Your task to perform on an android device: turn off data saver in the chrome app Image 0: 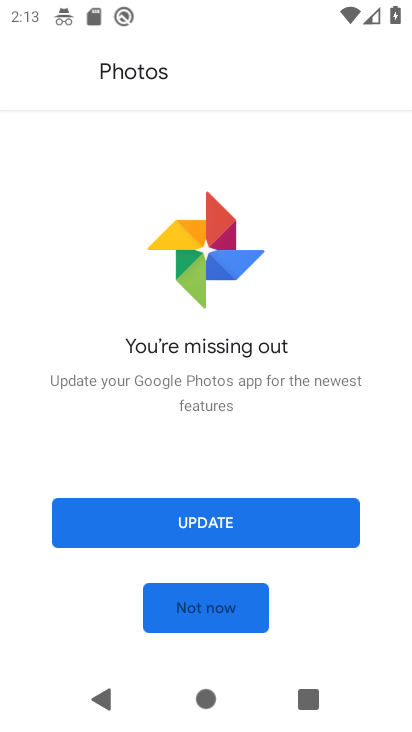
Step 0: press home button
Your task to perform on an android device: turn off data saver in the chrome app Image 1: 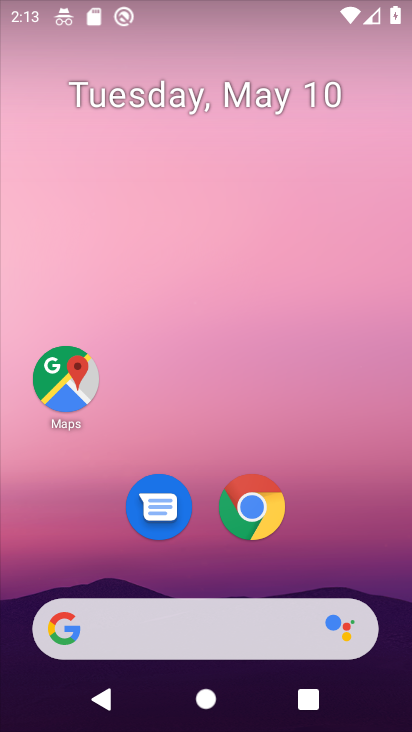
Step 1: click (249, 509)
Your task to perform on an android device: turn off data saver in the chrome app Image 2: 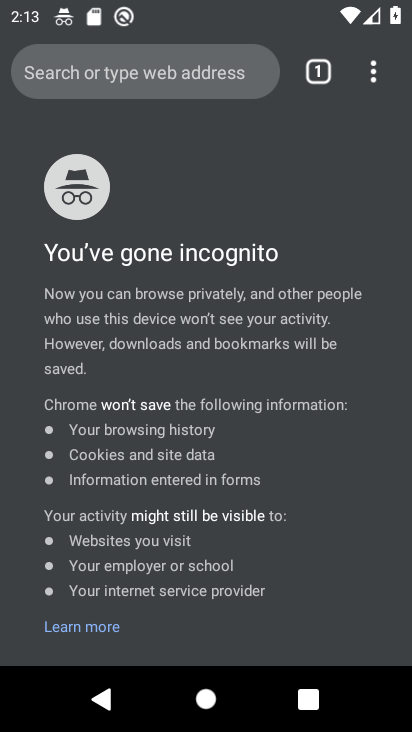
Step 2: click (376, 71)
Your task to perform on an android device: turn off data saver in the chrome app Image 3: 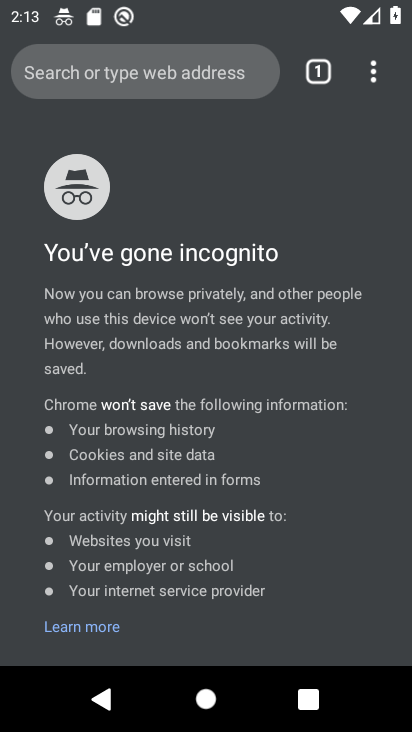
Step 3: click (377, 77)
Your task to perform on an android device: turn off data saver in the chrome app Image 4: 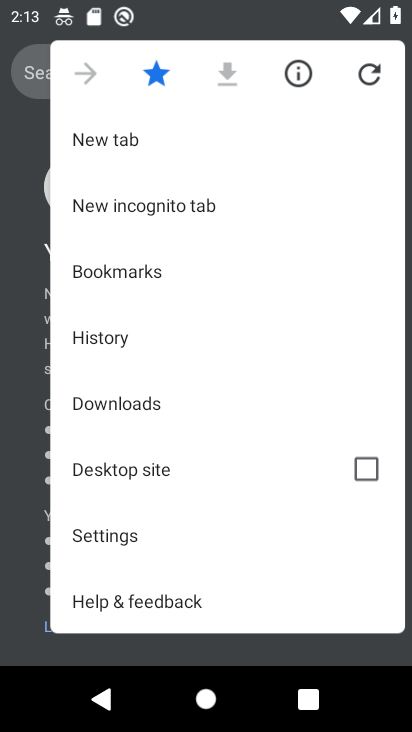
Step 4: click (124, 535)
Your task to perform on an android device: turn off data saver in the chrome app Image 5: 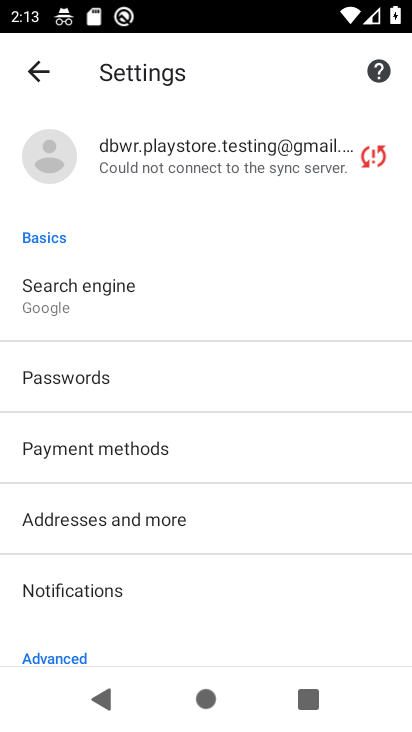
Step 5: drag from (158, 673) to (190, 365)
Your task to perform on an android device: turn off data saver in the chrome app Image 6: 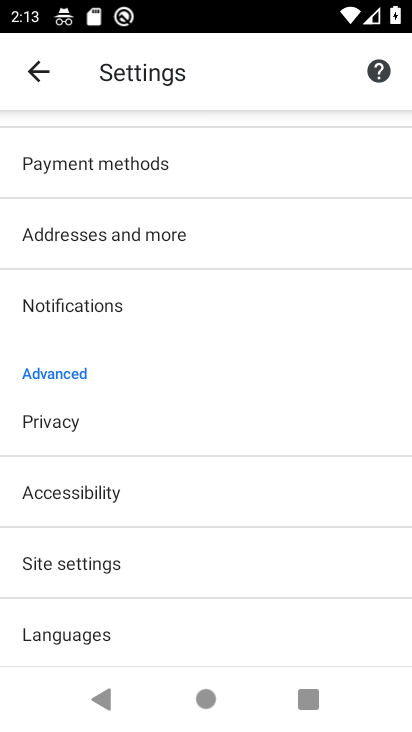
Step 6: drag from (154, 619) to (184, 416)
Your task to perform on an android device: turn off data saver in the chrome app Image 7: 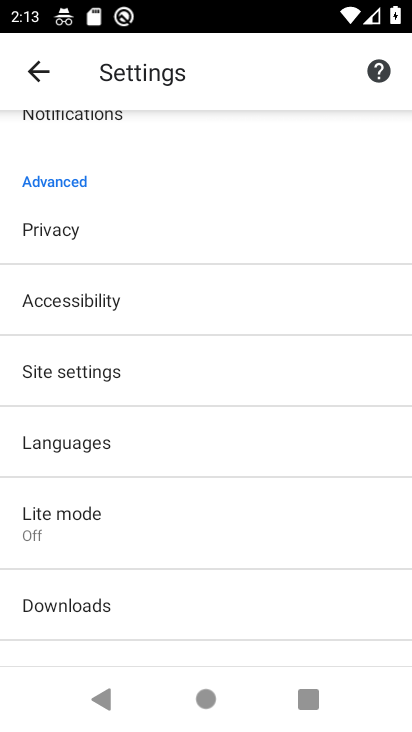
Step 7: click (103, 525)
Your task to perform on an android device: turn off data saver in the chrome app Image 8: 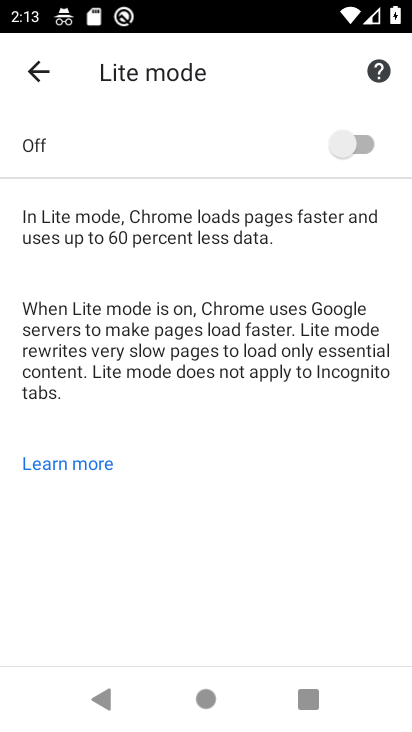
Step 8: task complete